Your task to perform on an android device: turn off data saver in the chrome app Image 0: 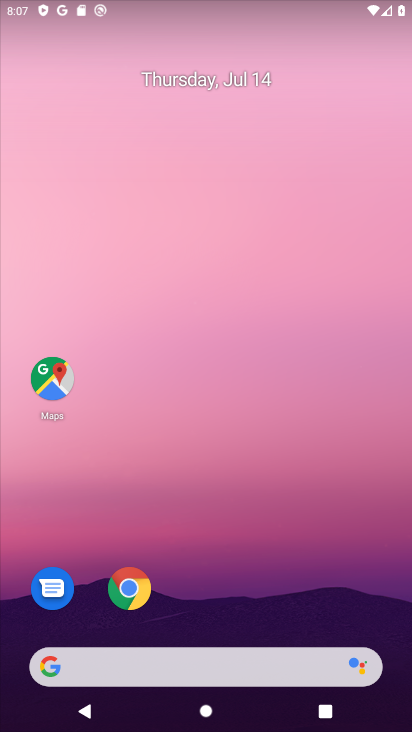
Step 0: drag from (233, 633) to (180, 61)
Your task to perform on an android device: turn off data saver in the chrome app Image 1: 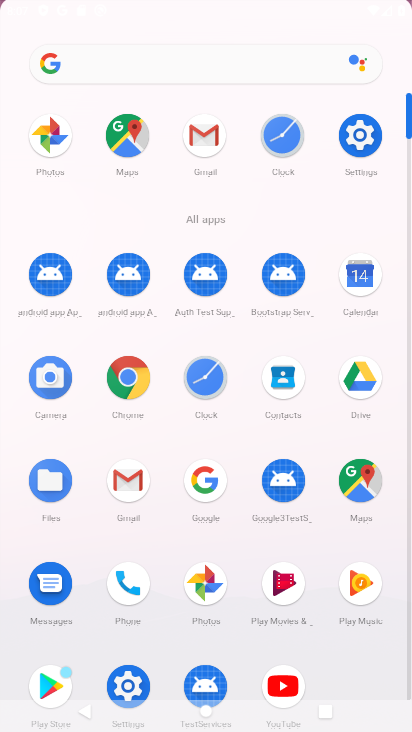
Step 1: drag from (228, 579) to (192, 286)
Your task to perform on an android device: turn off data saver in the chrome app Image 2: 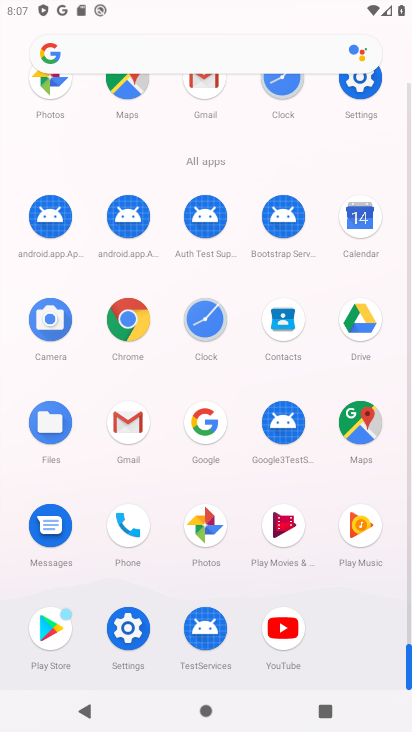
Step 2: click (114, 315)
Your task to perform on an android device: turn off data saver in the chrome app Image 3: 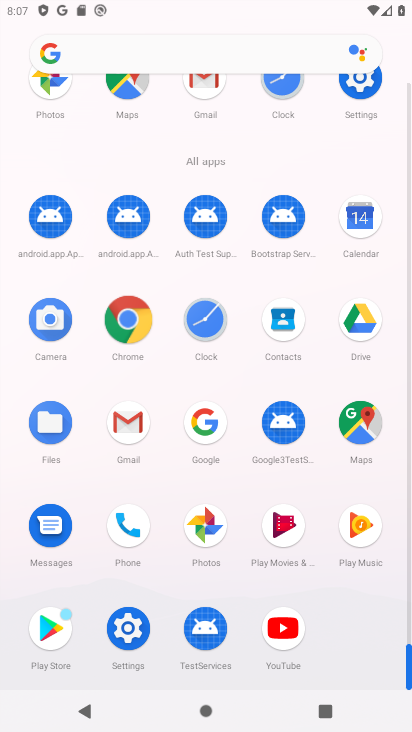
Step 3: click (120, 319)
Your task to perform on an android device: turn off data saver in the chrome app Image 4: 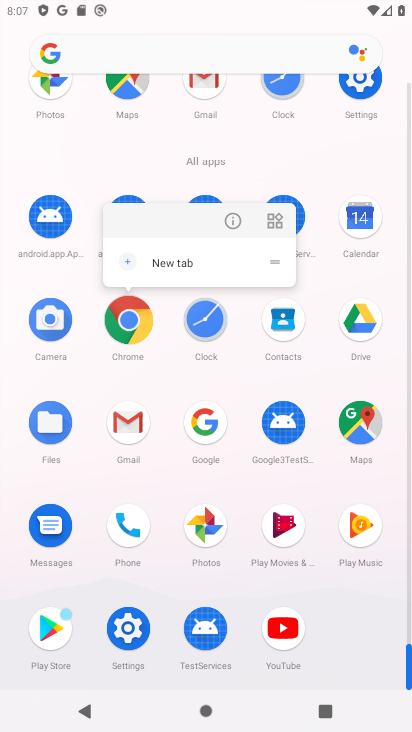
Step 4: click (122, 321)
Your task to perform on an android device: turn off data saver in the chrome app Image 5: 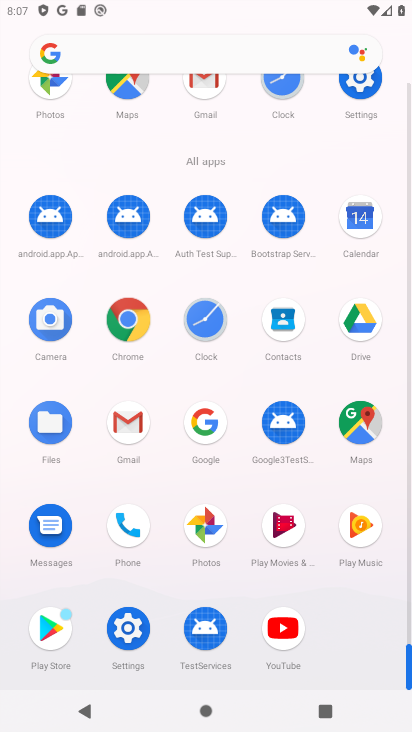
Step 5: click (124, 320)
Your task to perform on an android device: turn off data saver in the chrome app Image 6: 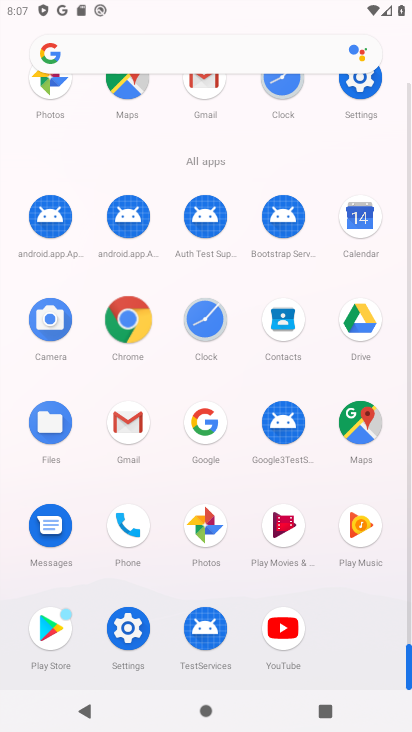
Step 6: click (128, 327)
Your task to perform on an android device: turn off data saver in the chrome app Image 7: 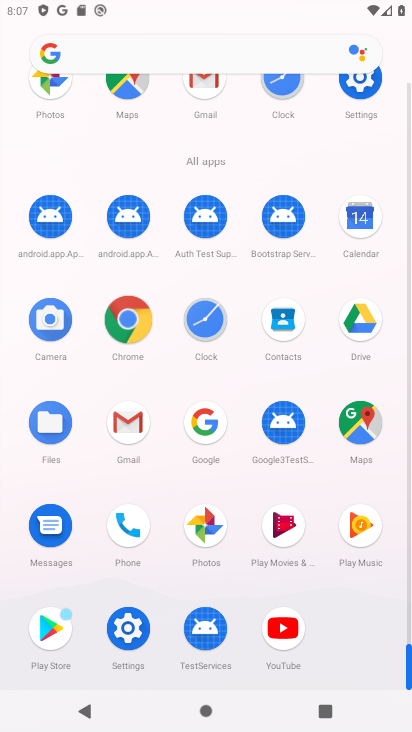
Step 7: click (130, 328)
Your task to perform on an android device: turn off data saver in the chrome app Image 8: 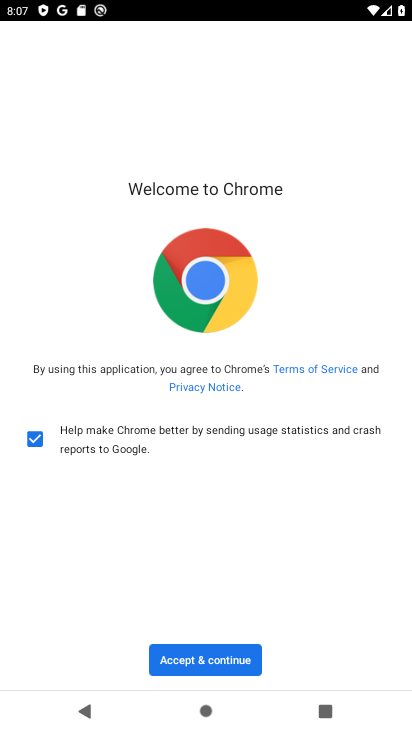
Step 8: click (225, 654)
Your task to perform on an android device: turn off data saver in the chrome app Image 9: 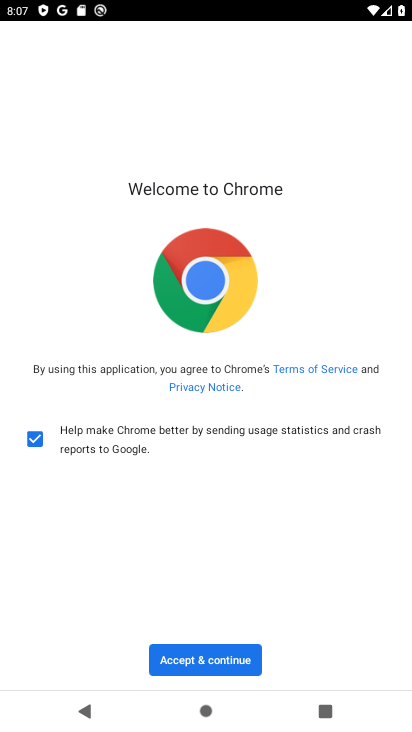
Step 9: click (225, 654)
Your task to perform on an android device: turn off data saver in the chrome app Image 10: 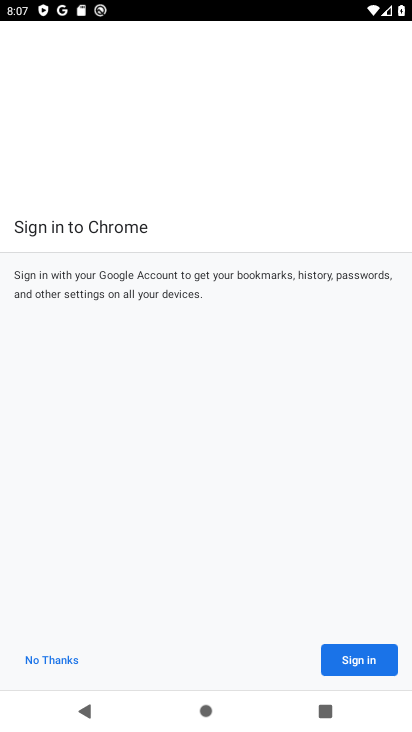
Step 10: click (225, 654)
Your task to perform on an android device: turn off data saver in the chrome app Image 11: 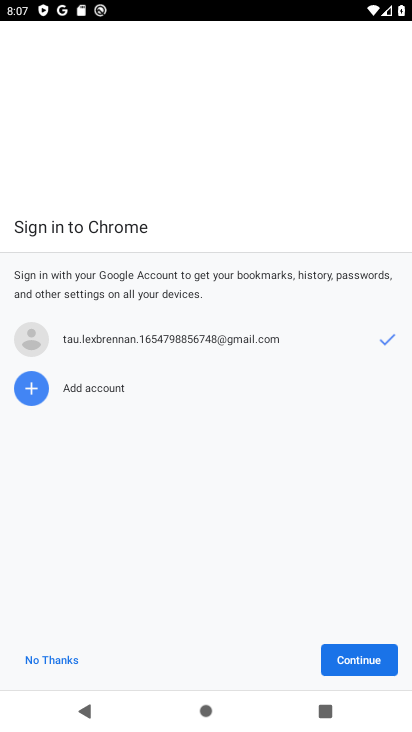
Step 11: click (354, 654)
Your task to perform on an android device: turn off data saver in the chrome app Image 12: 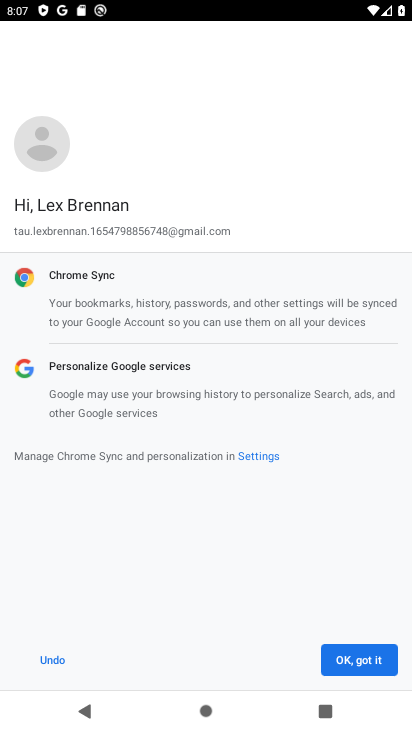
Step 12: click (356, 654)
Your task to perform on an android device: turn off data saver in the chrome app Image 13: 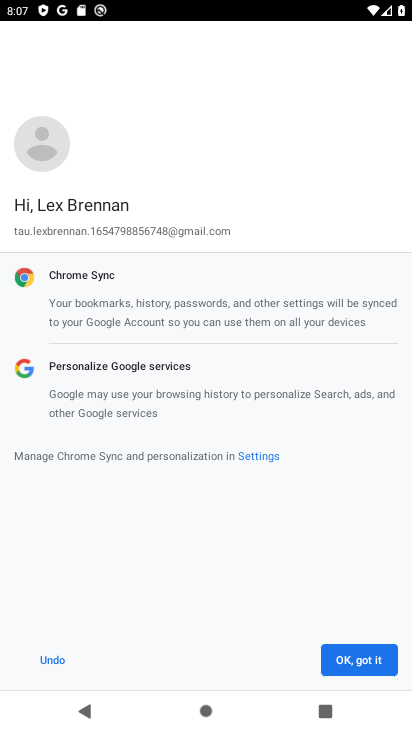
Step 13: click (356, 654)
Your task to perform on an android device: turn off data saver in the chrome app Image 14: 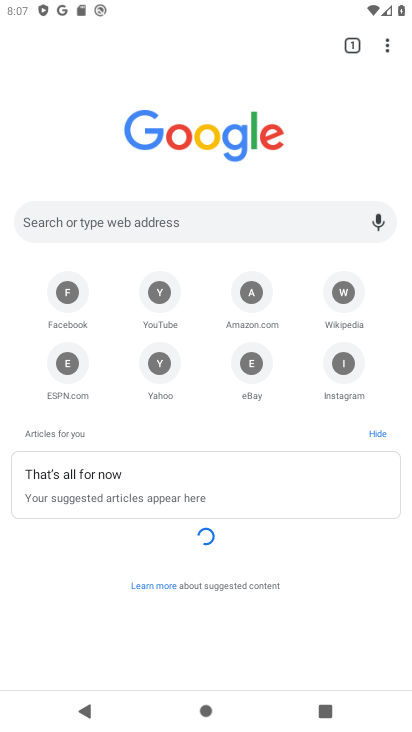
Step 14: drag from (382, 43) to (216, 377)
Your task to perform on an android device: turn off data saver in the chrome app Image 15: 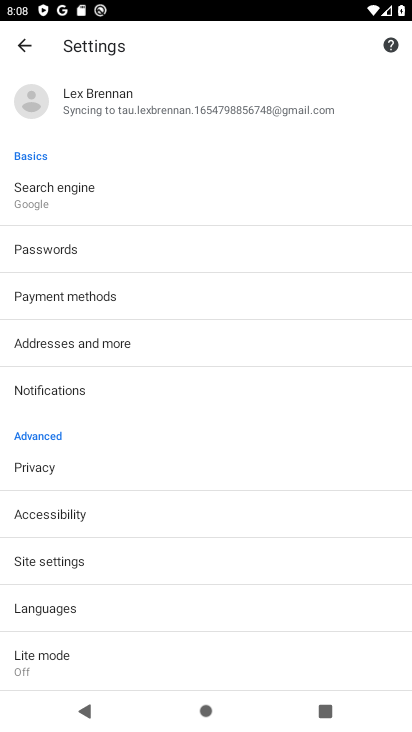
Step 15: click (33, 653)
Your task to perform on an android device: turn off data saver in the chrome app Image 16: 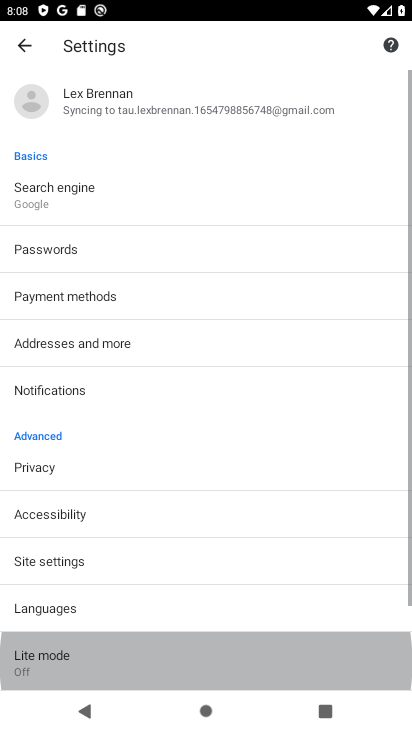
Step 16: click (33, 653)
Your task to perform on an android device: turn off data saver in the chrome app Image 17: 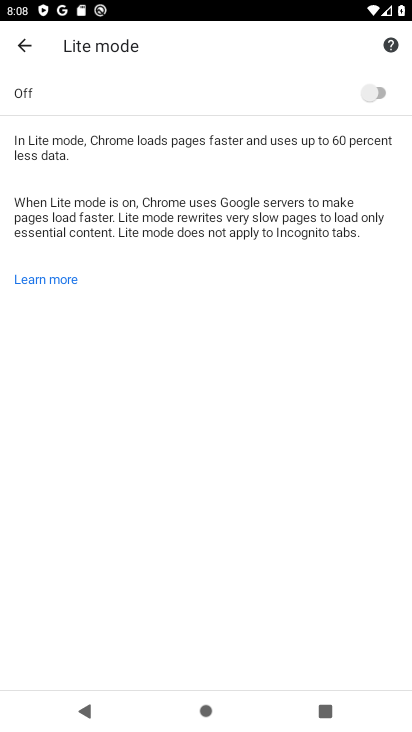
Step 17: task complete